Your task to perform on an android device: allow cookies in the chrome app Image 0: 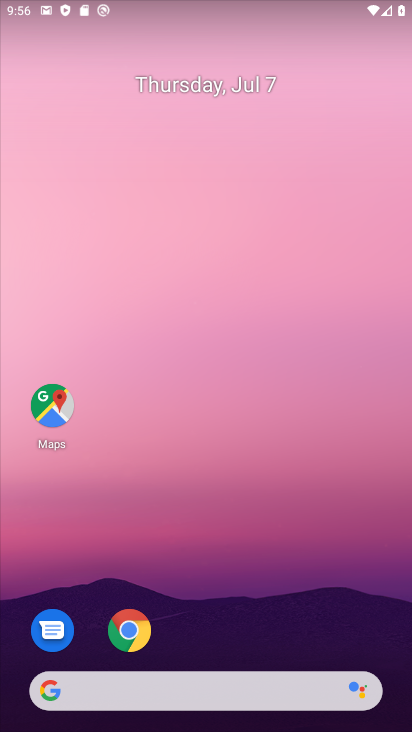
Step 0: click (135, 639)
Your task to perform on an android device: allow cookies in the chrome app Image 1: 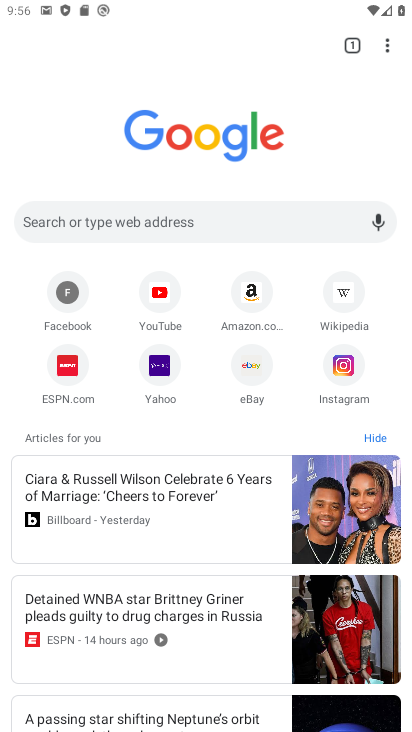
Step 1: press home button
Your task to perform on an android device: allow cookies in the chrome app Image 2: 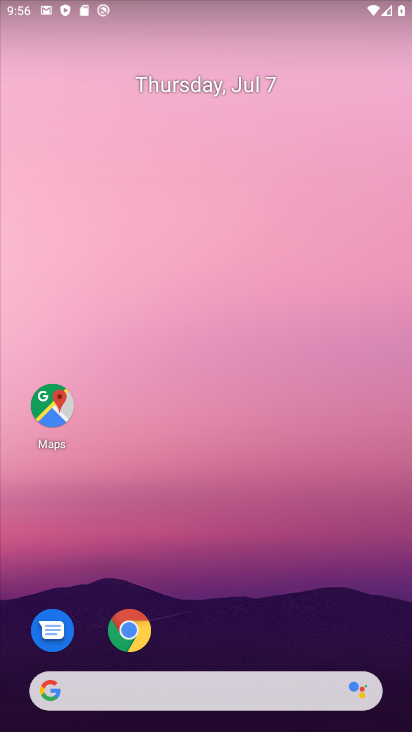
Step 2: click (117, 634)
Your task to perform on an android device: allow cookies in the chrome app Image 3: 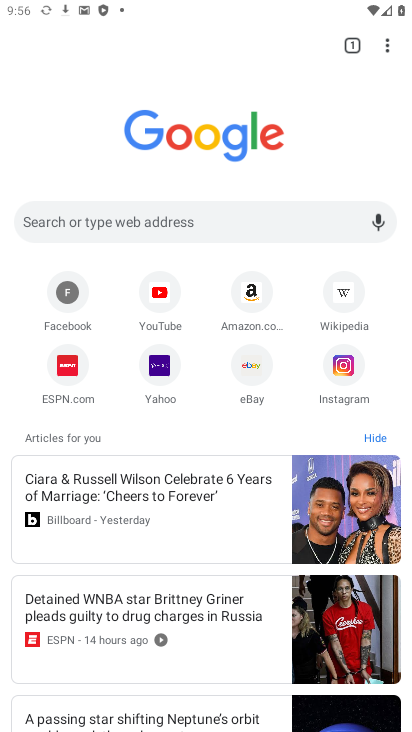
Step 3: click (380, 48)
Your task to perform on an android device: allow cookies in the chrome app Image 4: 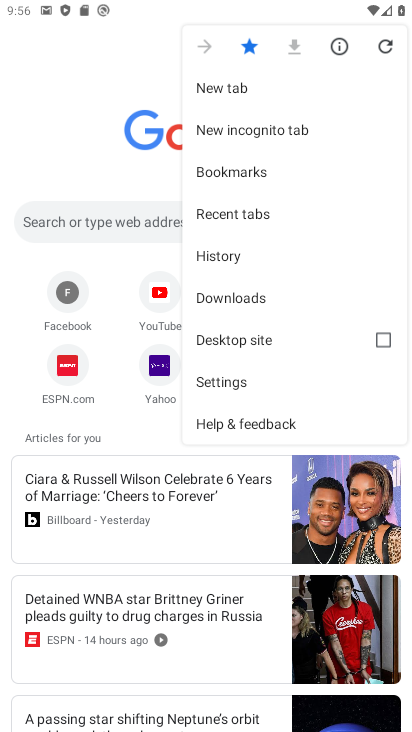
Step 4: click (209, 386)
Your task to perform on an android device: allow cookies in the chrome app Image 5: 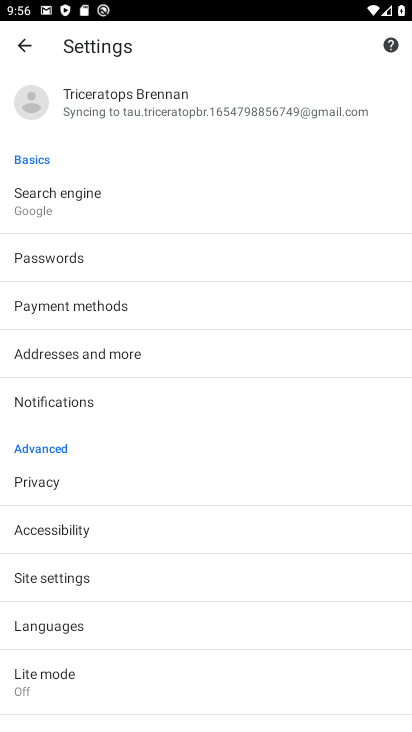
Step 5: click (42, 574)
Your task to perform on an android device: allow cookies in the chrome app Image 6: 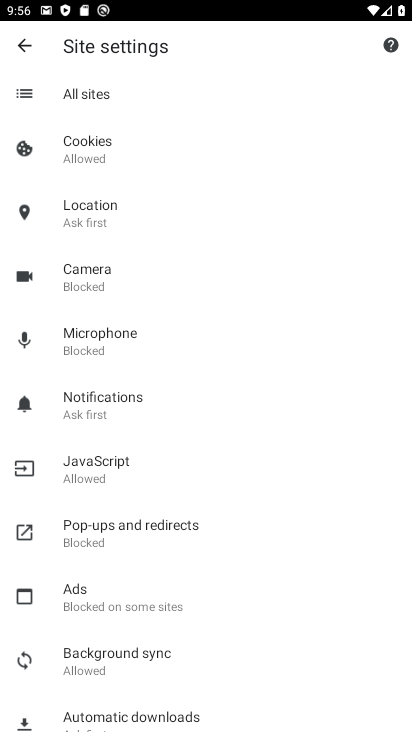
Step 6: click (113, 153)
Your task to perform on an android device: allow cookies in the chrome app Image 7: 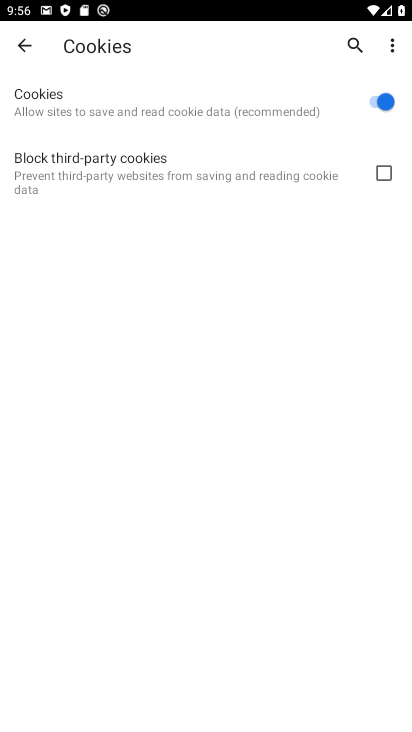
Step 7: task complete